Your task to perform on an android device: When is my next meeting? Image 0: 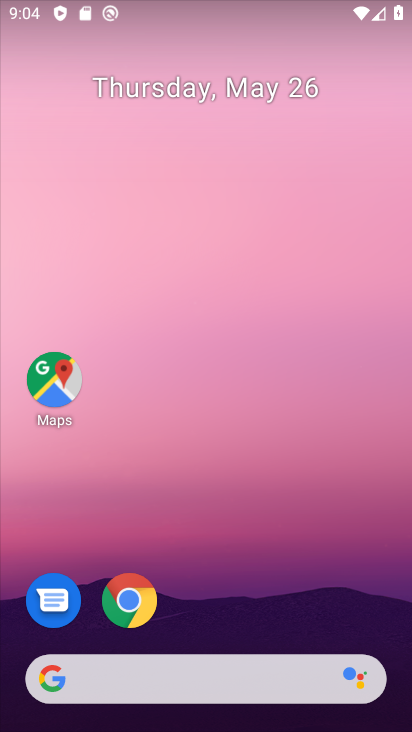
Step 0: drag from (202, 657) to (196, 73)
Your task to perform on an android device: When is my next meeting? Image 1: 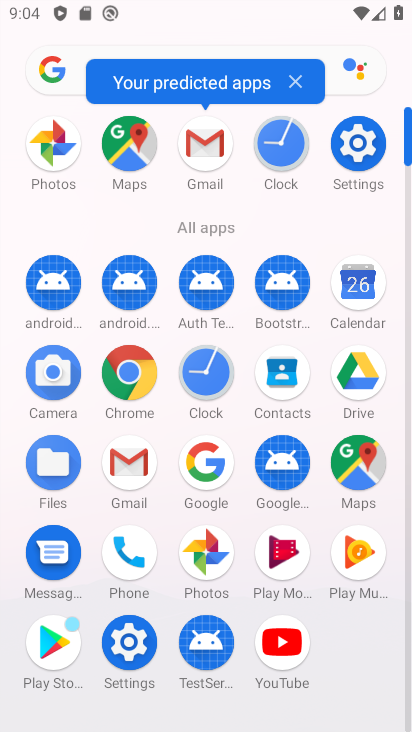
Step 1: click (368, 274)
Your task to perform on an android device: When is my next meeting? Image 2: 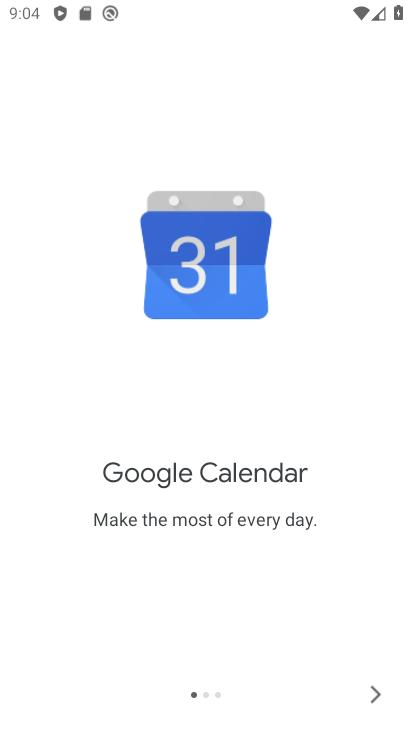
Step 2: click (373, 694)
Your task to perform on an android device: When is my next meeting? Image 3: 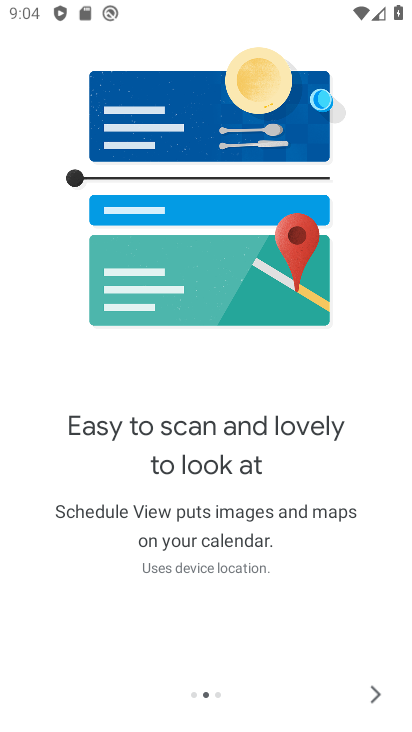
Step 3: click (373, 694)
Your task to perform on an android device: When is my next meeting? Image 4: 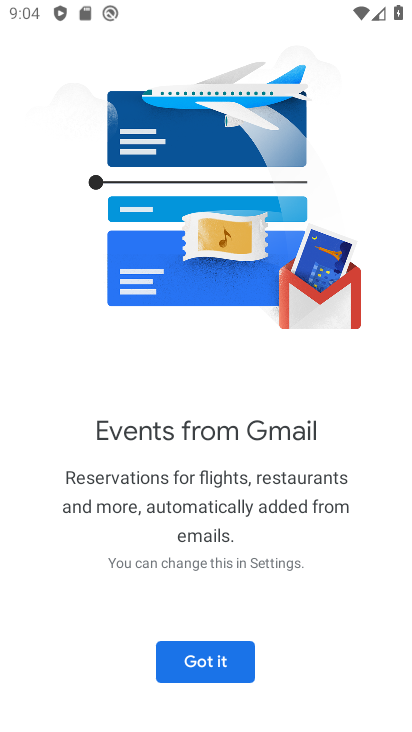
Step 4: click (187, 664)
Your task to perform on an android device: When is my next meeting? Image 5: 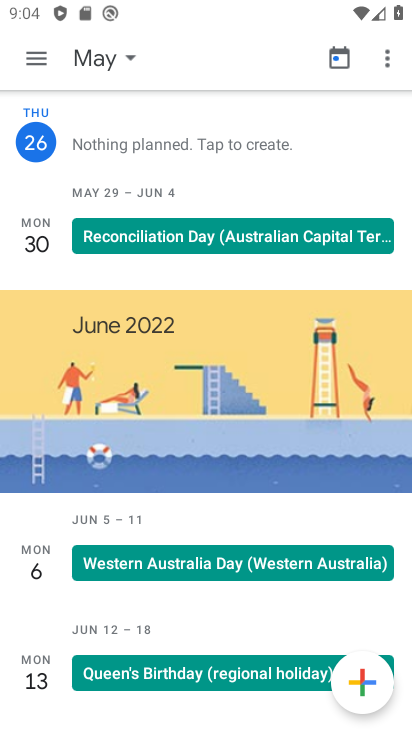
Step 5: click (99, 55)
Your task to perform on an android device: When is my next meeting? Image 6: 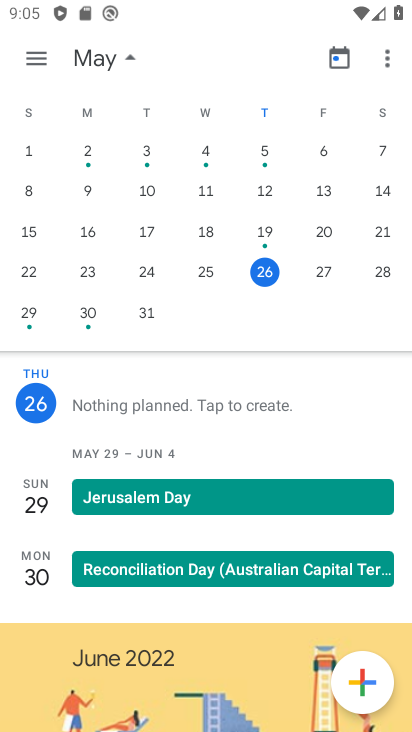
Step 6: click (331, 270)
Your task to perform on an android device: When is my next meeting? Image 7: 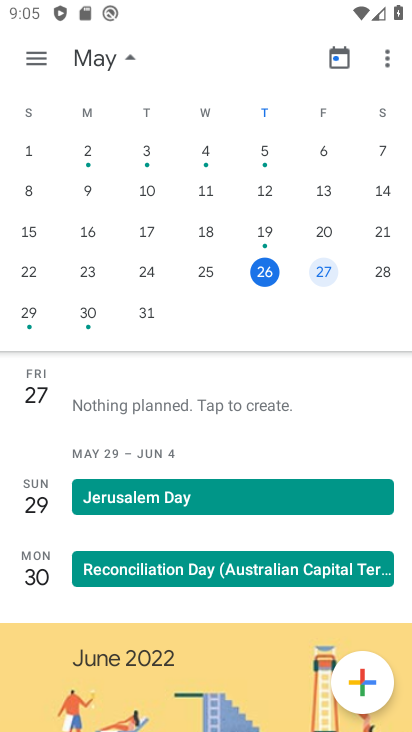
Step 7: click (37, 65)
Your task to perform on an android device: When is my next meeting? Image 8: 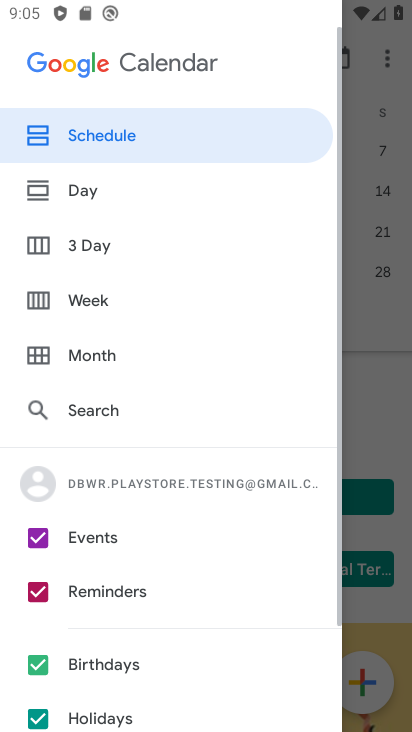
Step 8: click (358, 401)
Your task to perform on an android device: When is my next meeting? Image 9: 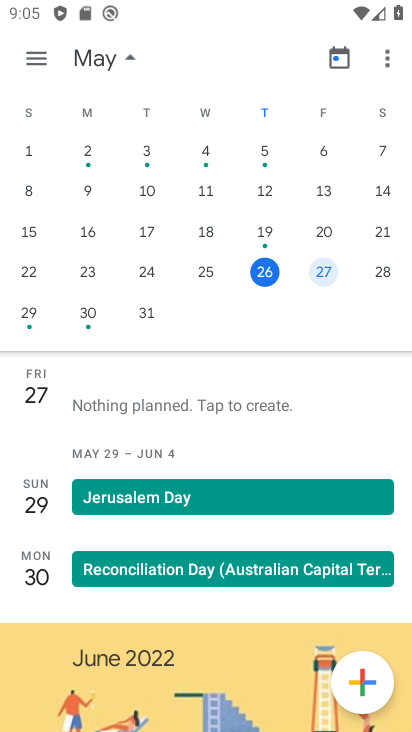
Step 9: click (157, 494)
Your task to perform on an android device: When is my next meeting? Image 10: 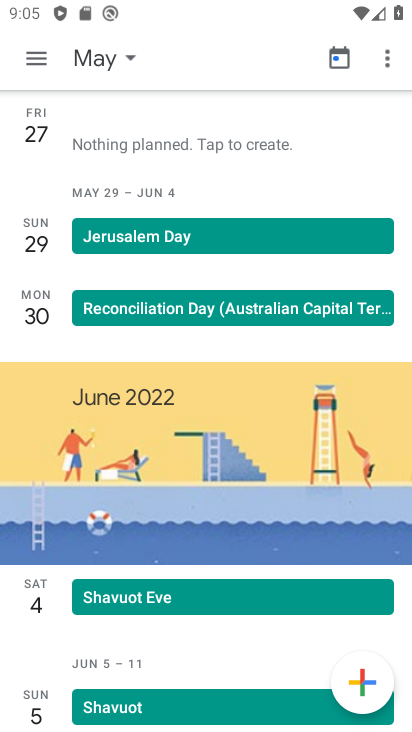
Step 10: task complete